Your task to perform on an android device: Show me recent news Image 0: 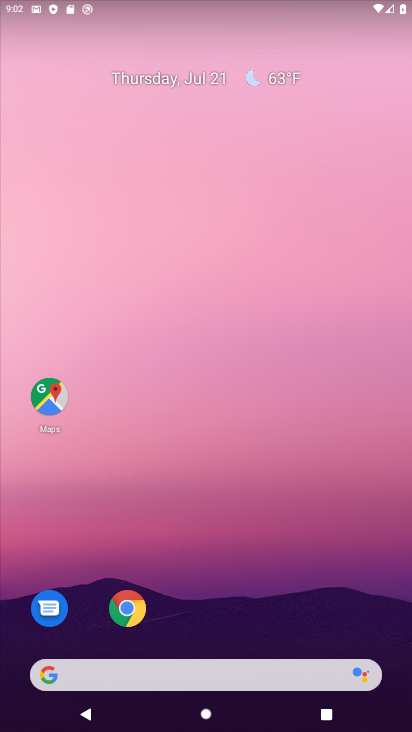
Step 0: drag from (206, 622) to (206, 118)
Your task to perform on an android device: Show me recent news Image 1: 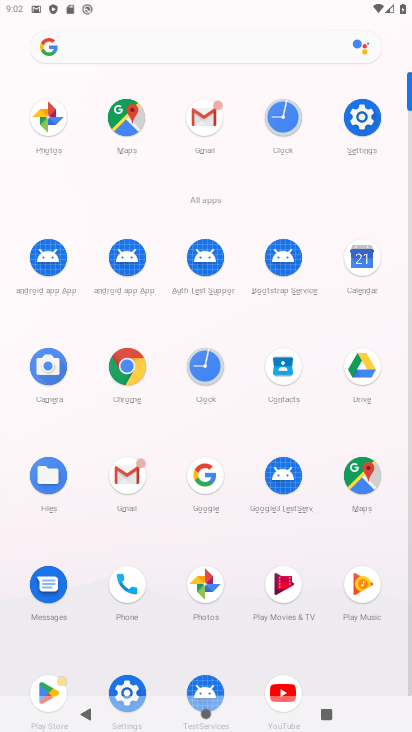
Step 1: click (206, 492)
Your task to perform on an android device: Show me recent news Image 2: 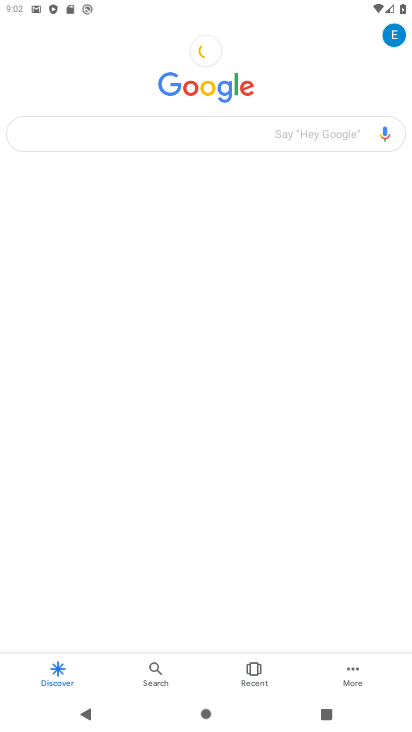
Step 2: click (273, 136)
Your task to perform on an android device: Show me recent news Image 3: 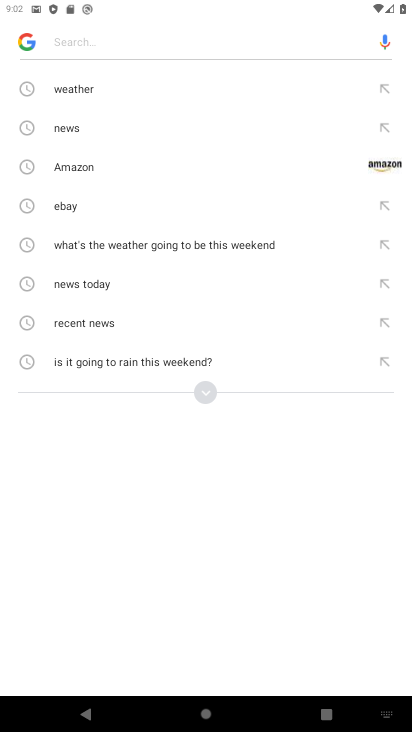
Step 3: click (103, 124)
Your task to perform on an android device: Show me recent news Image 4: 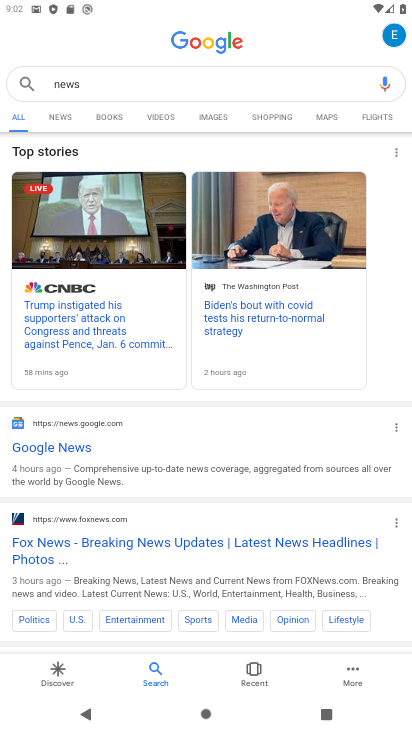
Step 4: click (69, 116)
Your task to perform on an android device: Show me recent news Image 5: 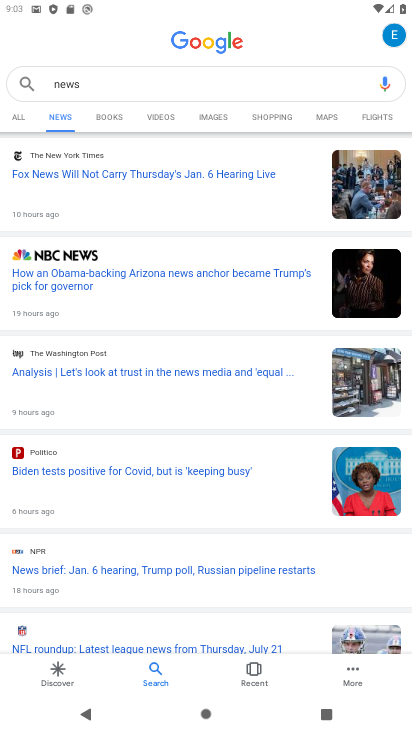
Step 5: task complete